Your task to perform on an android device: turn notification dots off Image 0: 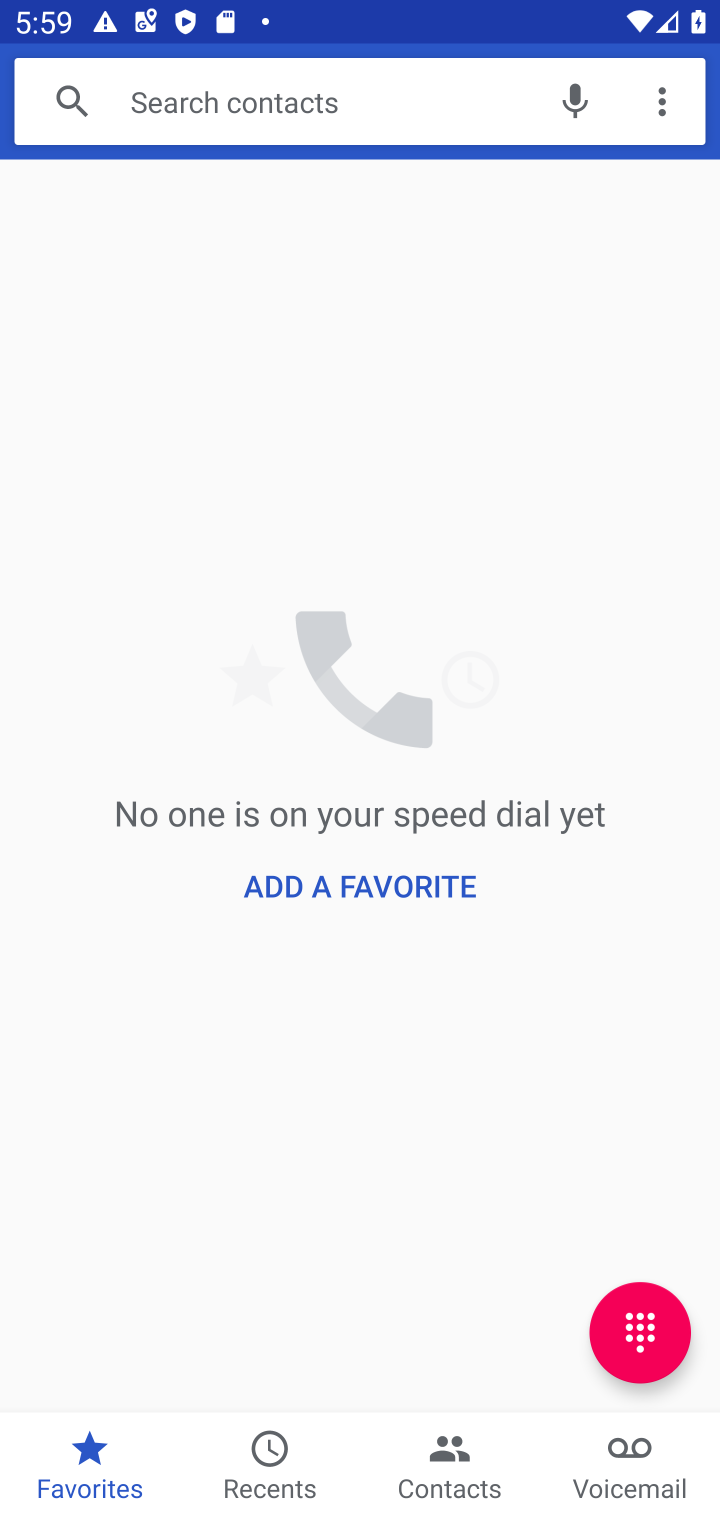
Step 0: press home button
Your task to perform on an android device: turn notification dots off Image 1: 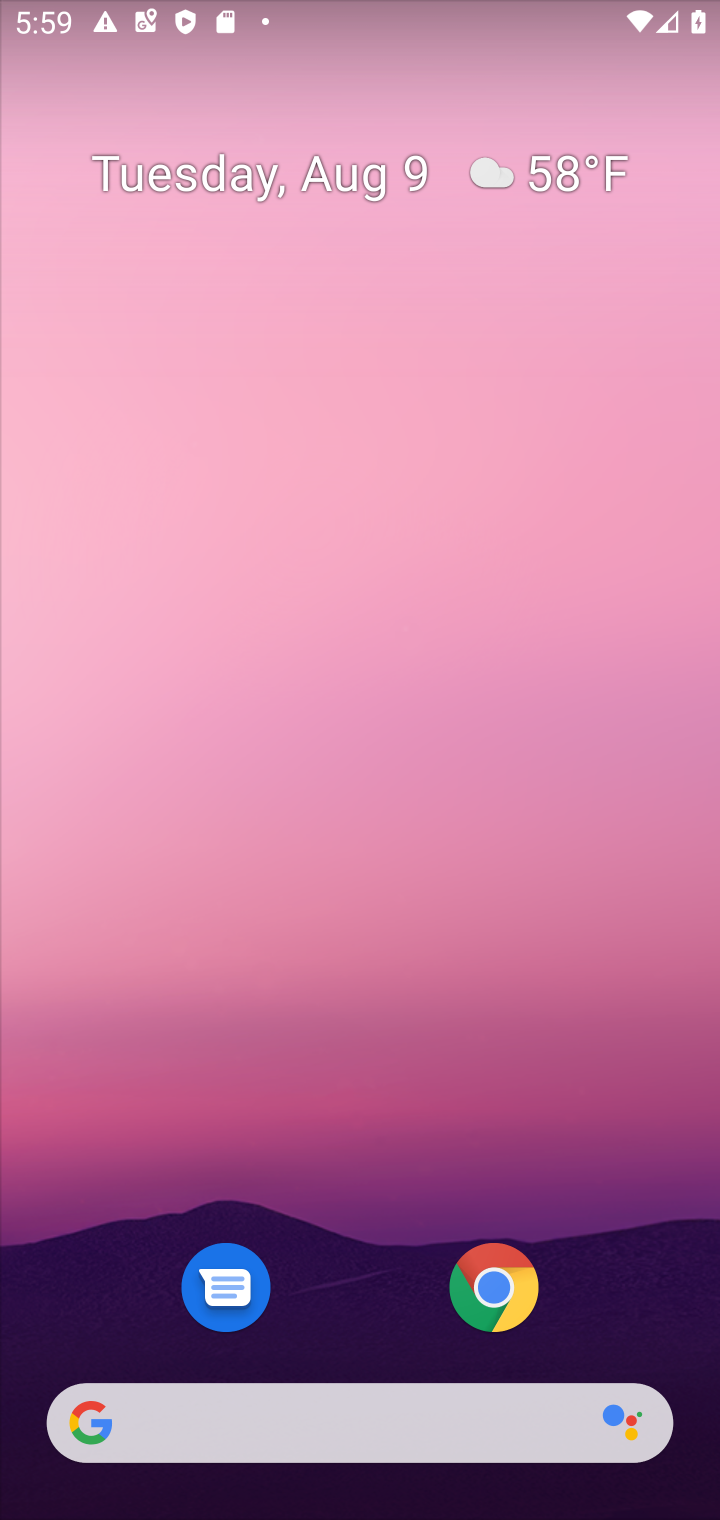
Step 1: click (501, 1288)
Your task to perform on an android device: turn notification dots off Image 2: 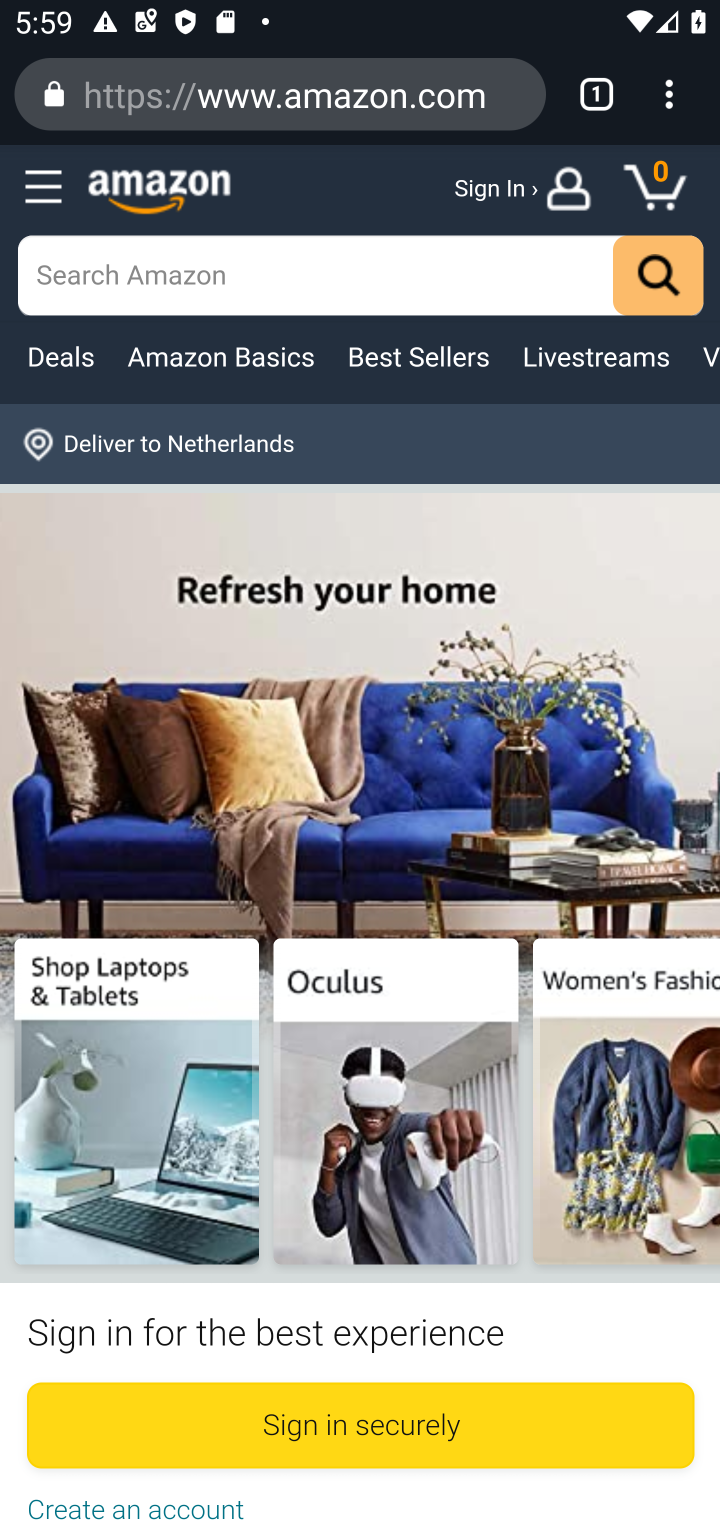
Step 2: click (691, 108)
Your task to perform on an android device: turn notification dots off Image 3: 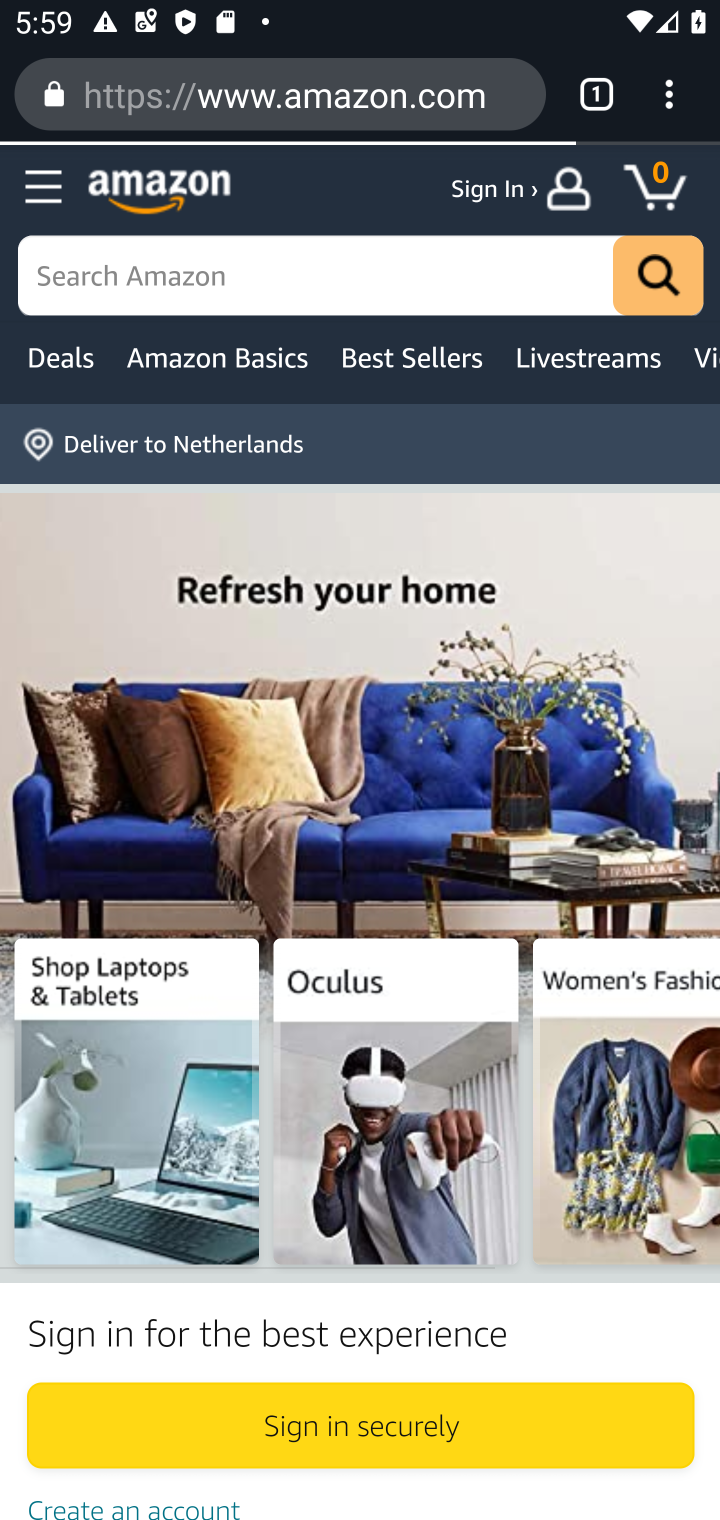
Step 3: click (694, 123)
Your task to perform on an android device: turn notification dots off Image 4: 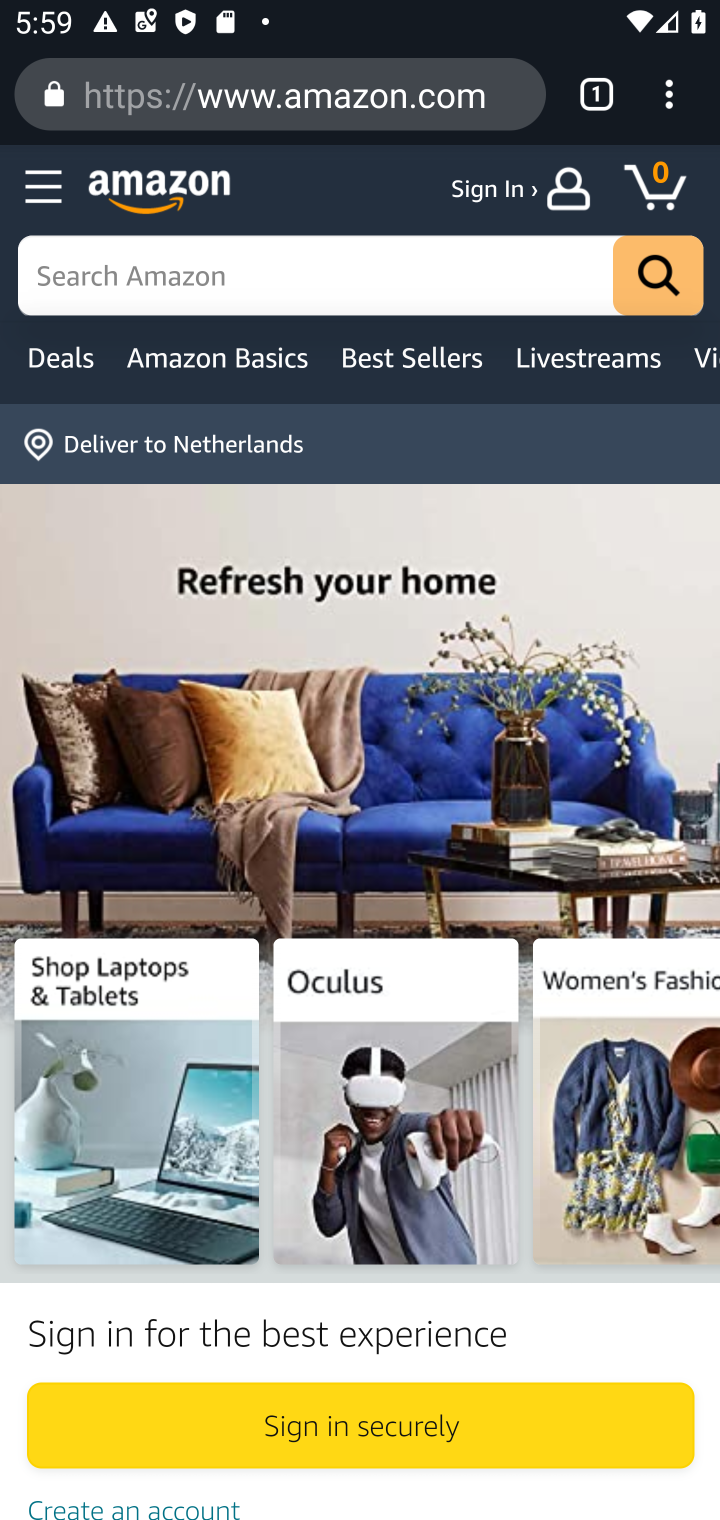
Step 4: click (687, 97)
Your task to perform on an android device: turn notification dots off Image 5: 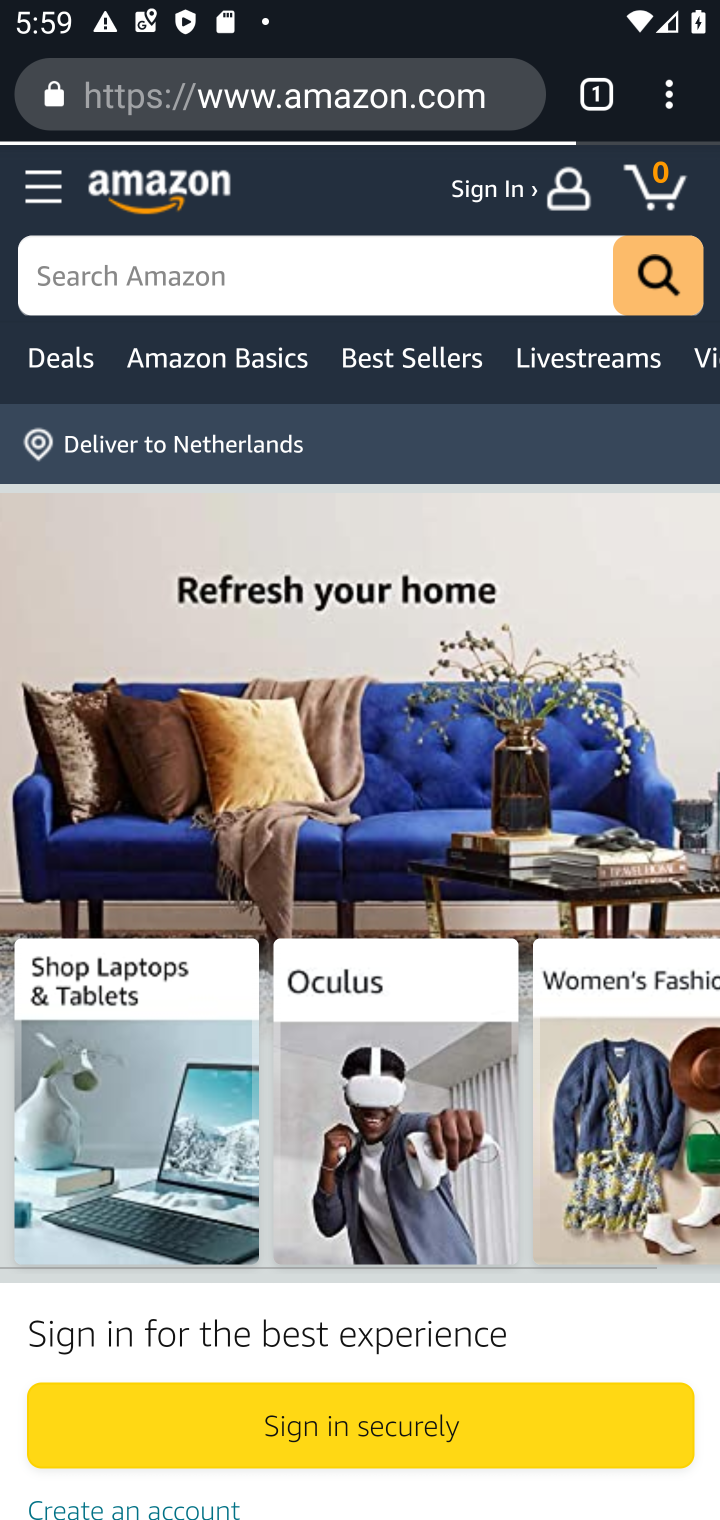
Step 5: click (700, 98)
Your task to perform on an android device: turn notification dots off Image 6: 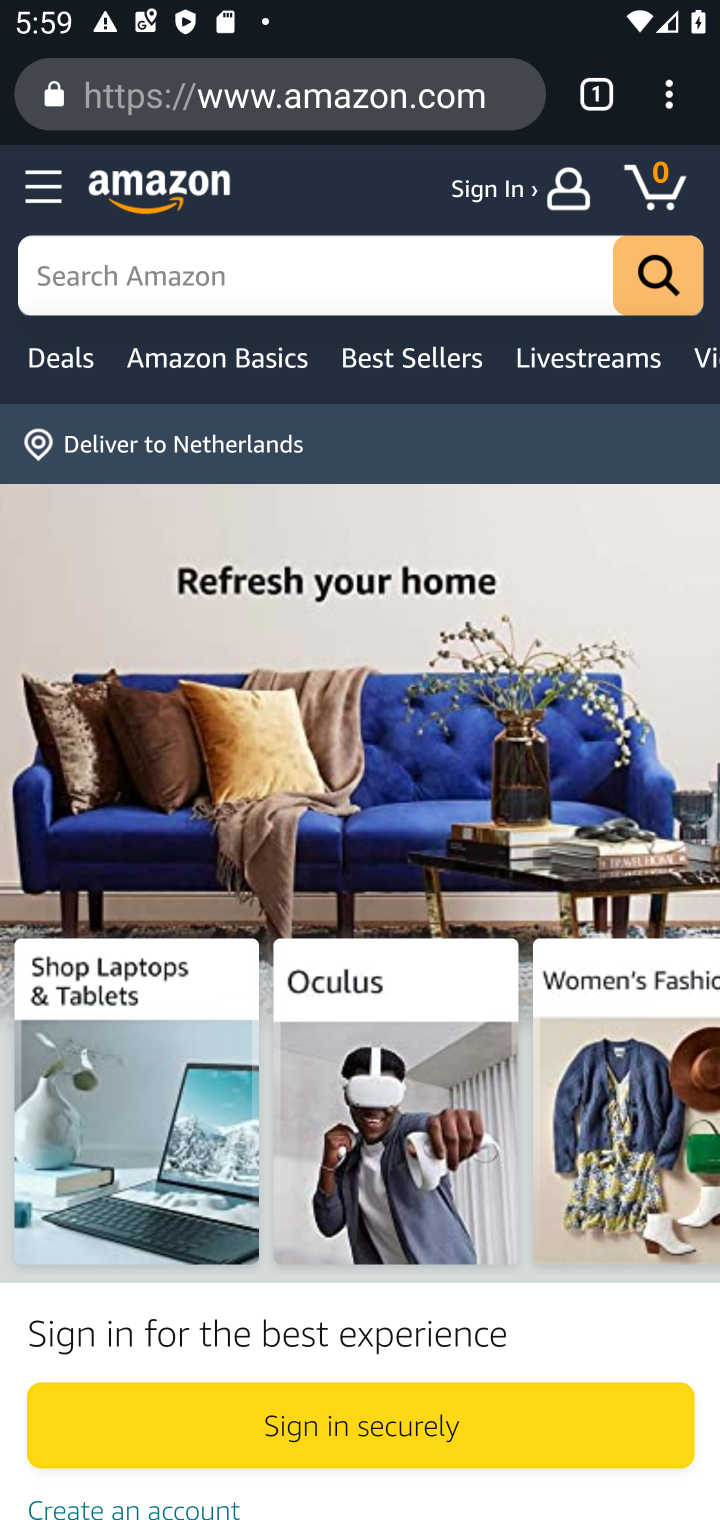
Step 6: task complete